Your task to perform on an android device: Open Wikipedia Image 0: 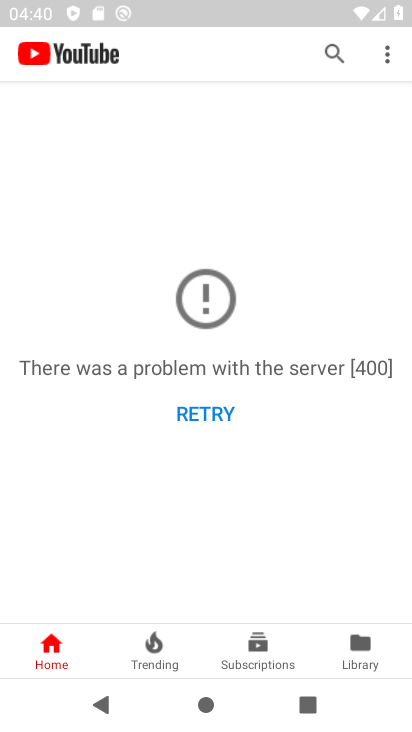
Step 0: press home button
Your task to perform on an android device: Open Wikipedia Image 1: 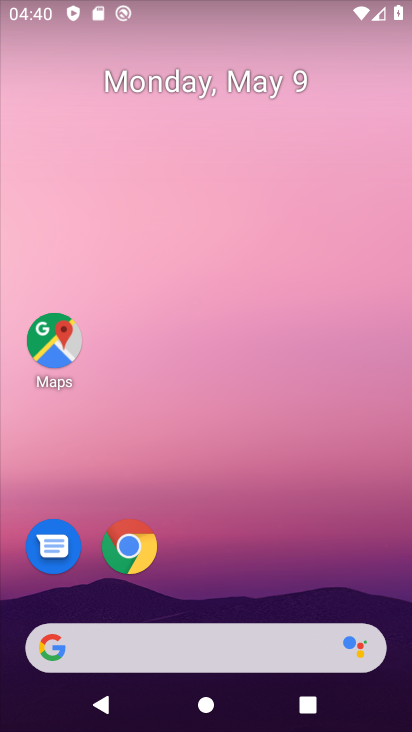
Step 1: click (139, 558)
Your task to perform on an android device: Open Wikipedia Image 2: 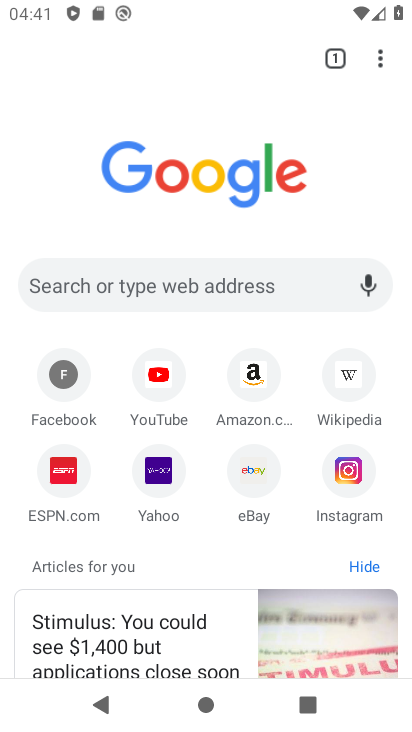
Step 2: click (334, 376)
Your task to perform on an android device: Open Wikipedia Image 3: 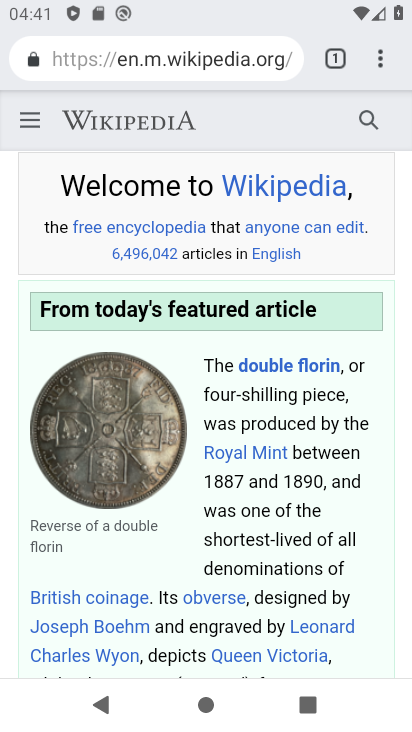
Step 3: task complete